Your task to perform on an android device: Open settings Image 0: 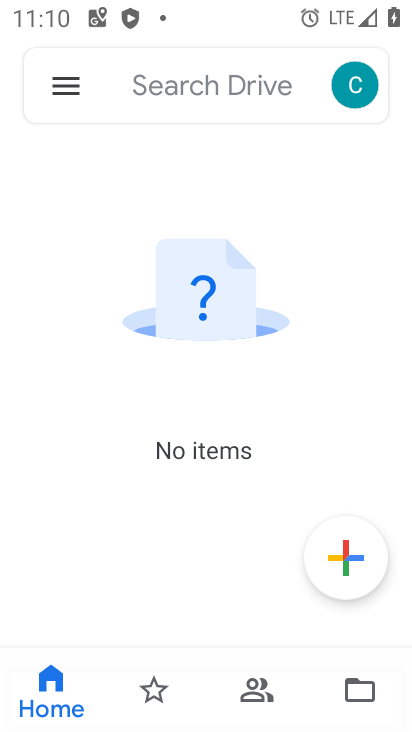
Step 0: press home button
Your task to perform on an android device: Open settings Image 1: 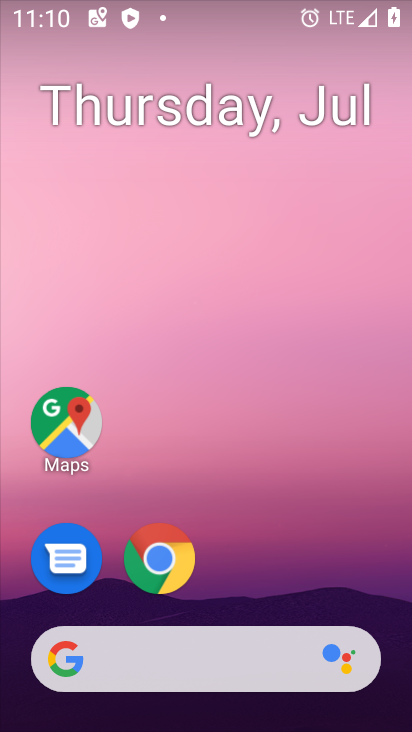
Step 1: drag from (352, 571) to (373, 83)
Your task to perform on an android device: Open settings Image 2: 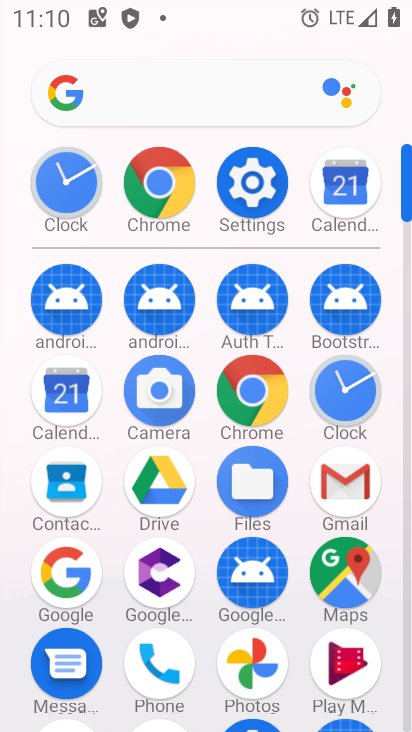
Step 2: click (265, 197)
Your task to perform on an android device: Open settings Image 3: 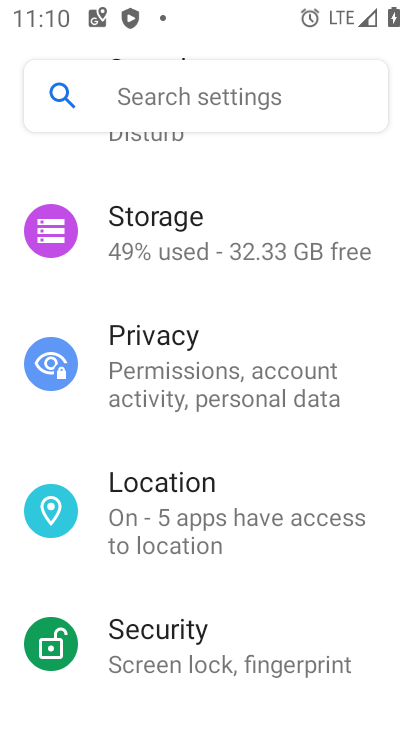
Step 3: task complete